Your task to perform on an android device: toggle location history Image 0: 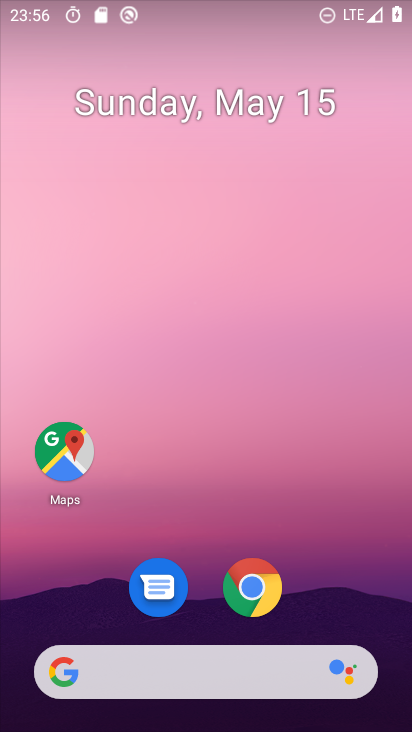
Step 0: drag from (211, 638) to (211, 226)
Your task to perform on an android device: toggle location history Image 1: 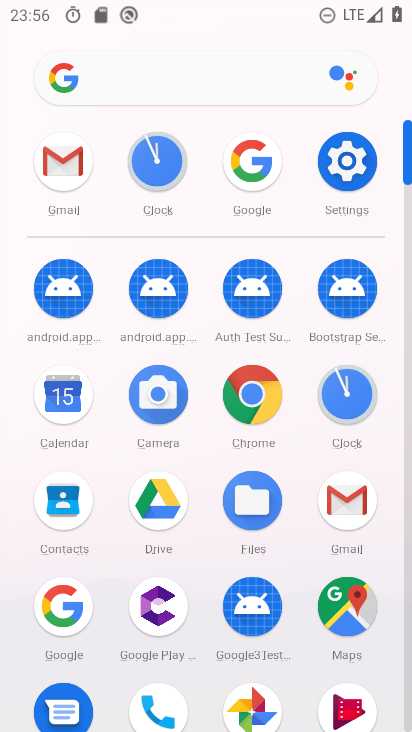
Step 1: click (347, 158)
Your task to perform on an android device: toggle location history Image 2: 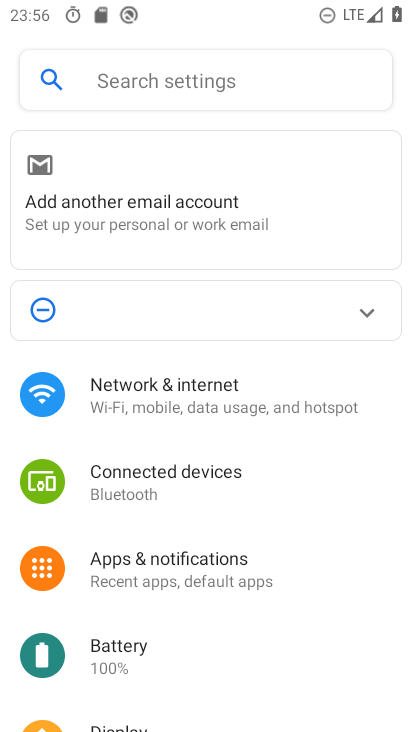
Step 2: drag from (239, 619) to (244, 477)
Your task to perform on an android device: toggle location history Image 3: 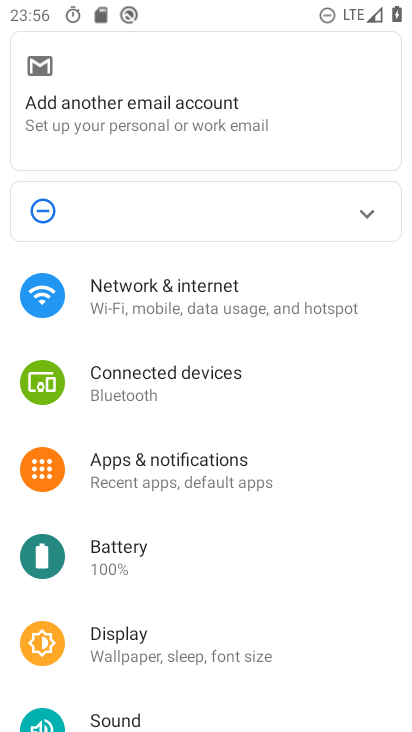
Step 3: drag from (234, 597) to (240, 450)
Your task to perform on an android device: toggle location history Image 4: 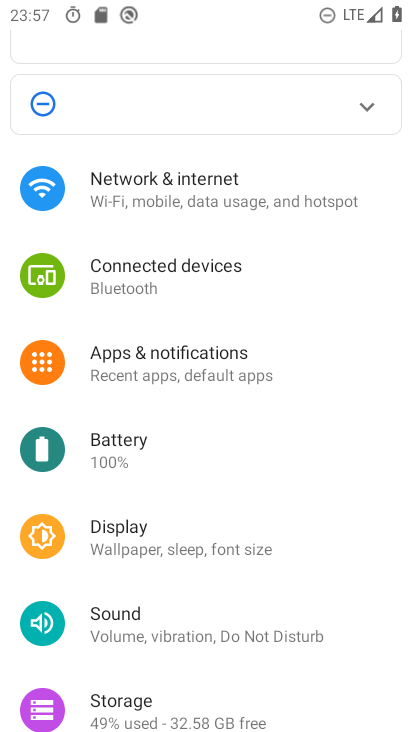
Step 4: drag from (246, 631) to (256, 378)
Your task to perform on an android device: toggle location history Image 5: 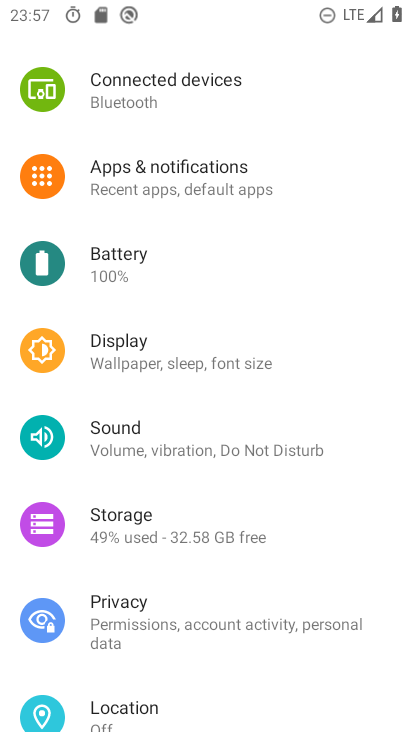
Step 5: click (164, 703)
Your task to perform on an android device: toggle location history Image 6: 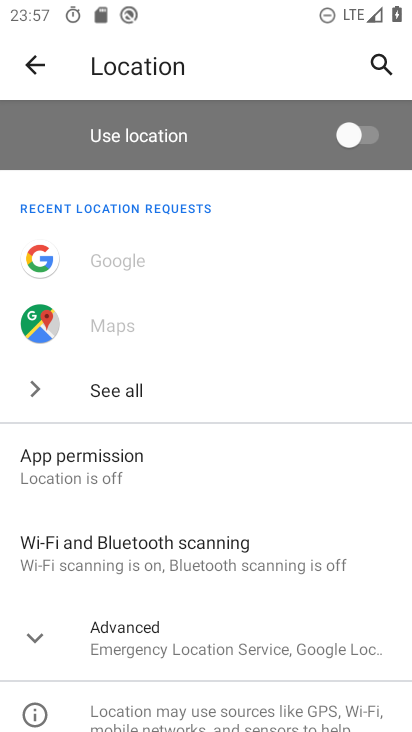
Step 6: click (219, 640)
Your task to perform on an android device: toggle location history Image 7: 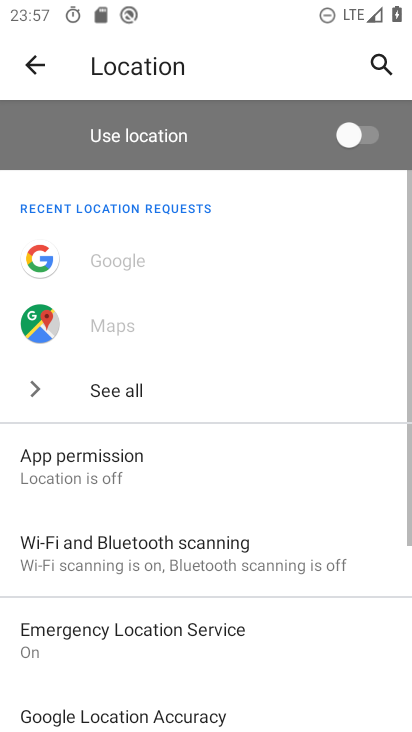
Step 7: drag from (245, 642) to (253, 381)
Your task to perform on an android device: toggle location history Image 8: 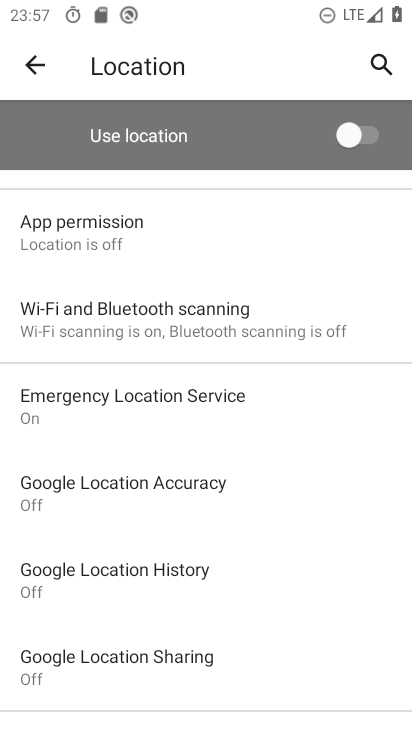
Step 8: click (206, 589)
Your task to perform on an android device: toggle location history Image 9: 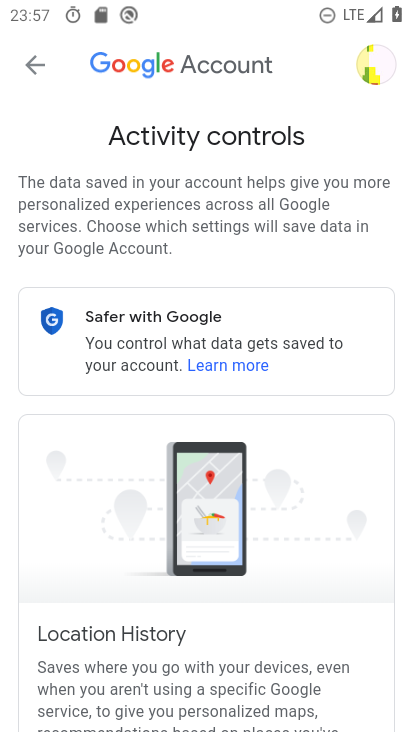
Step 9: drag from (262, 571) to (275, 233)
Your task to perform on an android device: toggle location history Image 10: 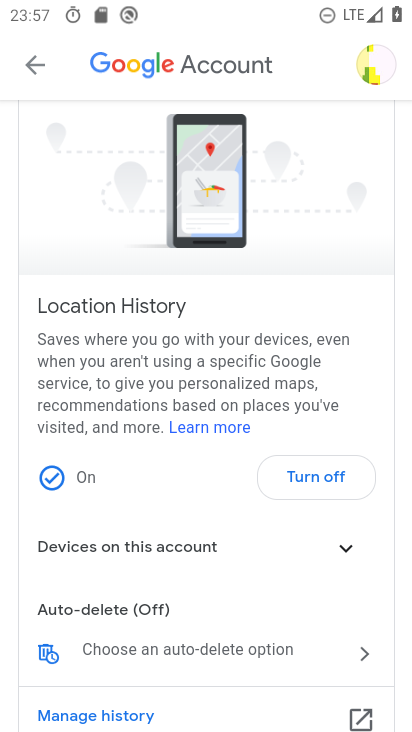
Step 10: click (306, 473)
Your task to perform on an android device: toggle location history Image 11: 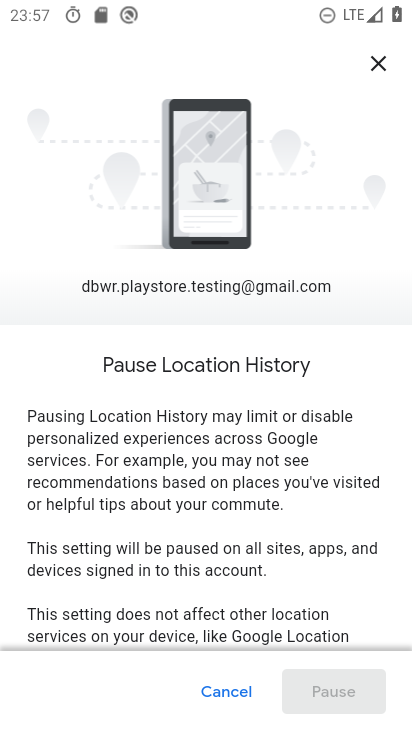
Step 11: drag from (286, 600) to (223, 130)
Your task to perform on an android device: toggle location history Image 12: 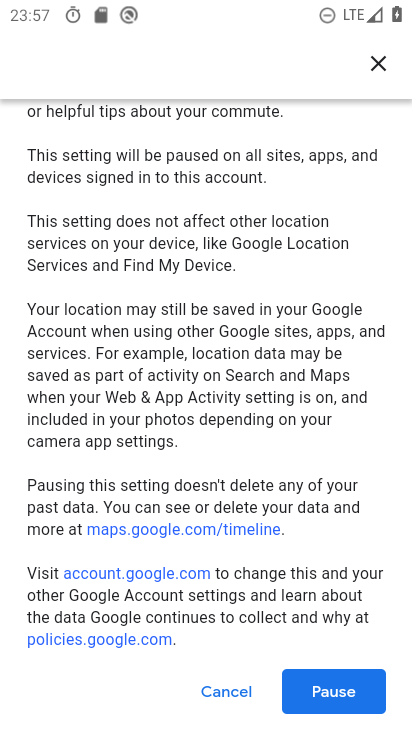
Step 12: drag from (246, 420) to (247, 105)
Your task to perform on an android device: toggle location history Image 13: 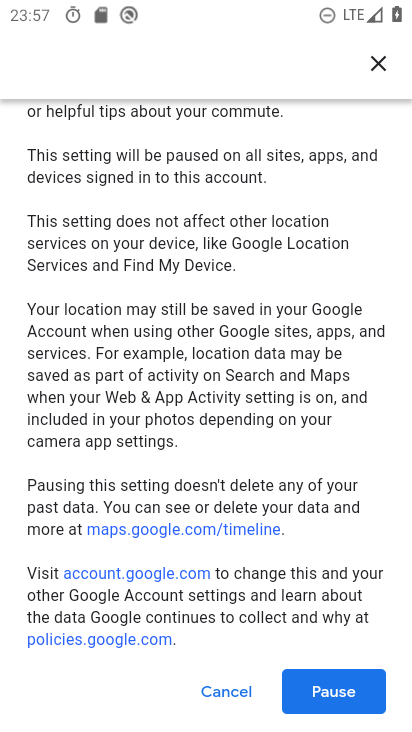
Step 13: click (328, 685)
Your task to perform on an android device: toggle location history Image 14: 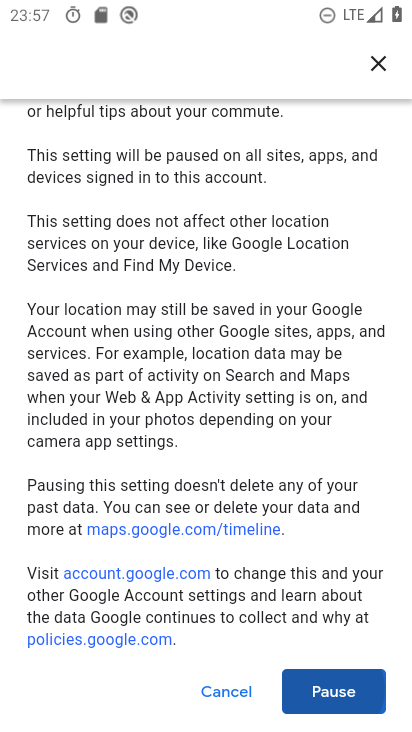
Step 14: task complete